Your task to perform on an android device: set the timer Image 0: 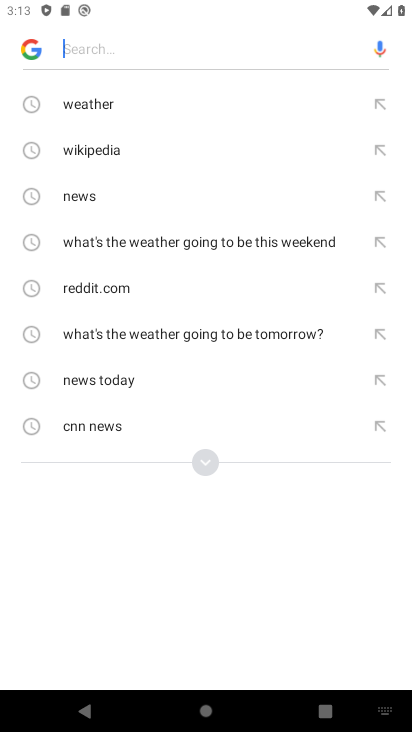
Step 0: press back button
Your task to perform on an android device: set the timer Image 1: 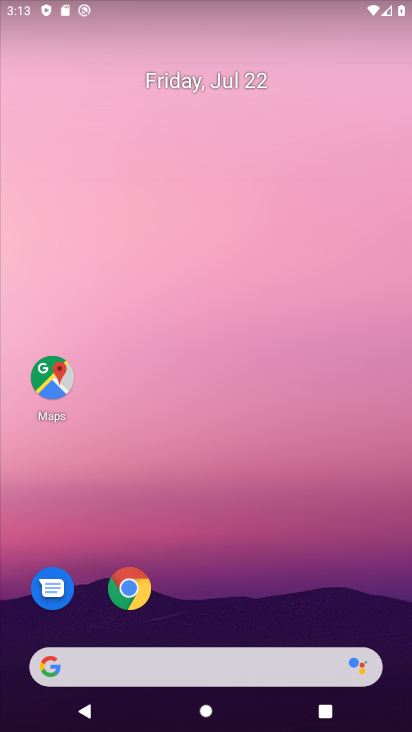
Step 1: drag from (234, 571) to (219, 647)
Your task to perform on an android device: set the timer Image 2: 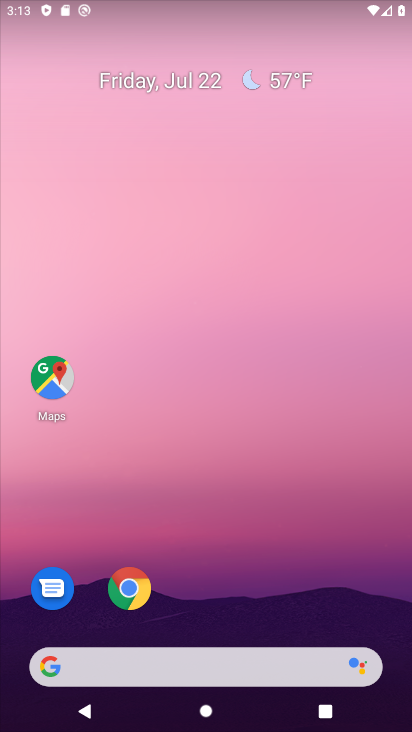
Step 2: drag from (215, 622) to (193, 83)
Your task to perform on an android device: set the timer Image 3: 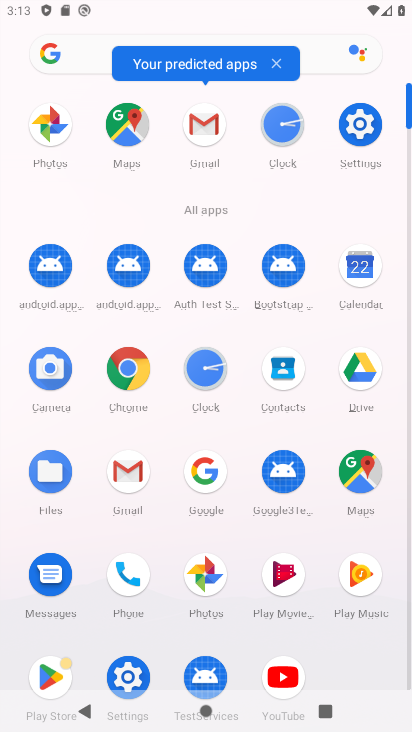
Step 3: click (210, 364)
Your task to perform on an android device: set the timer Image 4: 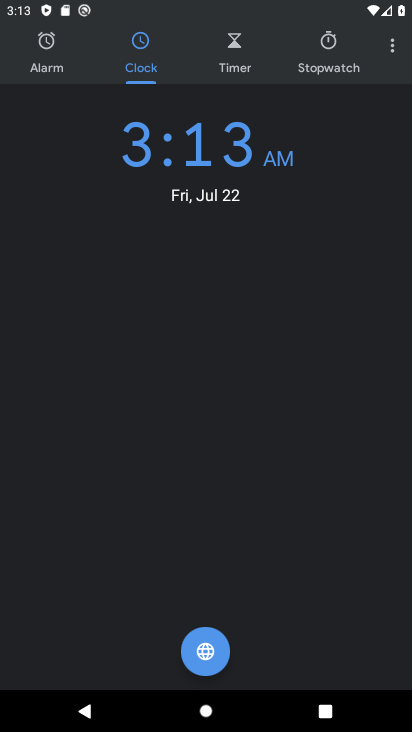
Step 4: click (238, 42)
Your task to perform on an android device: set the timer Image 5: 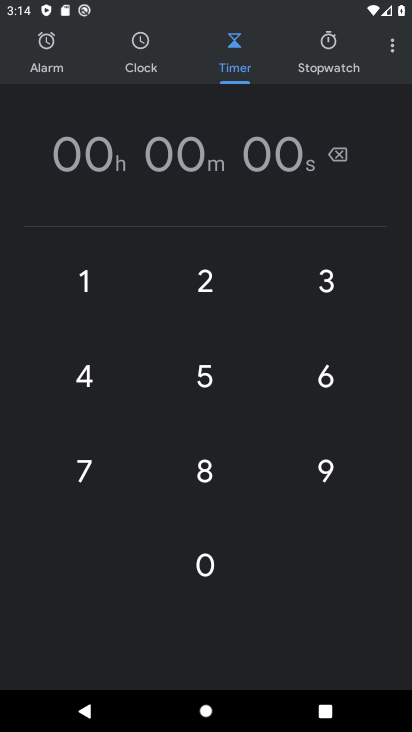
Step 5: click (219, 284)
Your task to perform on an android device: set the timer Image 6: 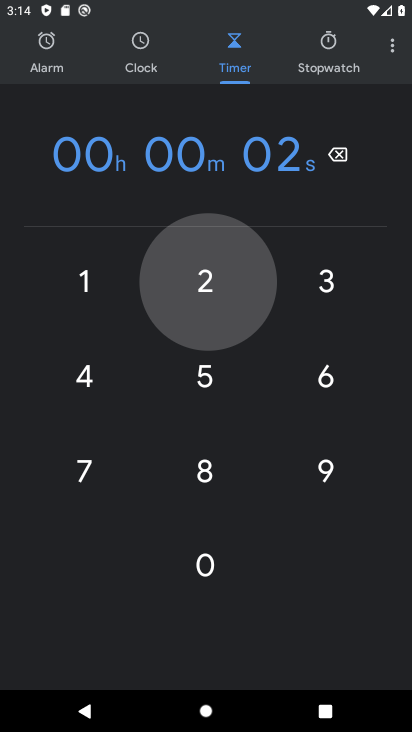
Step 6: click (210, 341)
Your task to perform on an android device: set the timer Image 7: 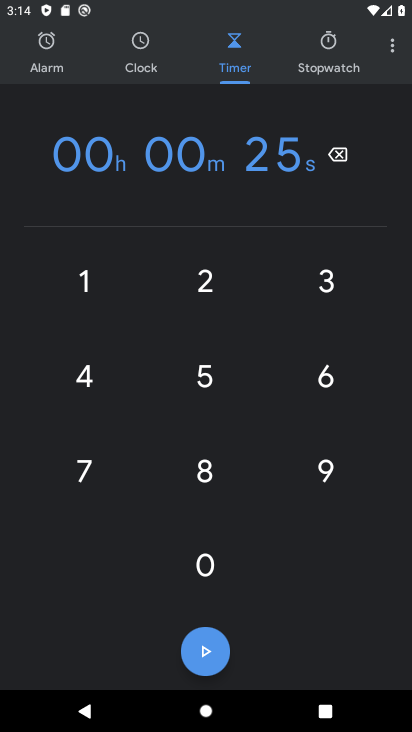
Step 7: click (198, 647)
Your task to perform on an android device: set the timer Image 8: 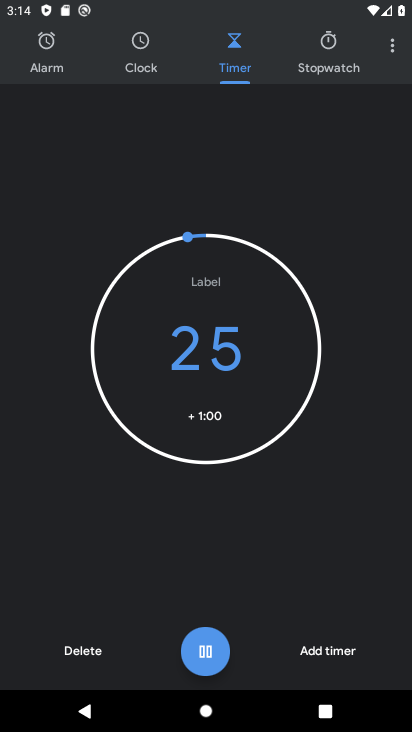
Step 8: task complete